Your task to perform on an android device: Open the phone app and click the voicemail tab. Image 0: 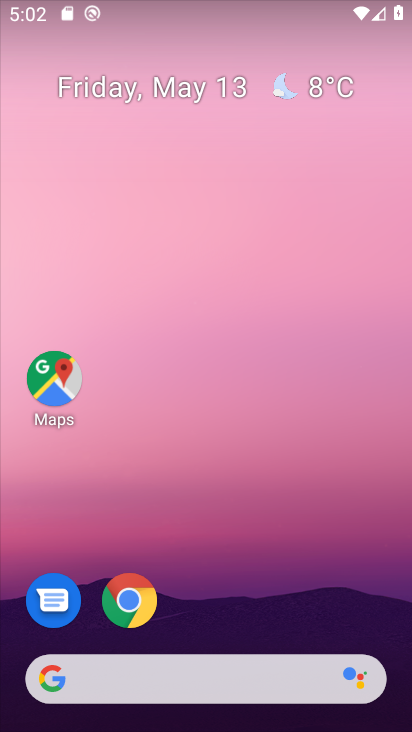
Step 0: drag from (317, 570) to (191, 76)
Your task to perform on an android device: Open the phone app and click the voicemail tab. Image 1: 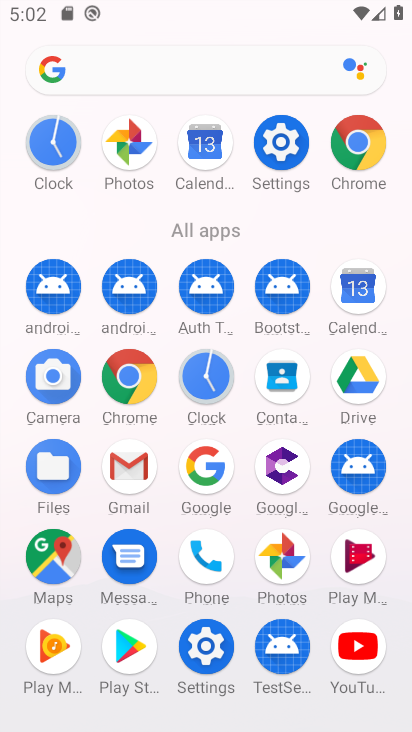
Step 1: click (191, 582)
Your task to perform on an android device: Open the phone app and click the voicemail tab. Image 2: 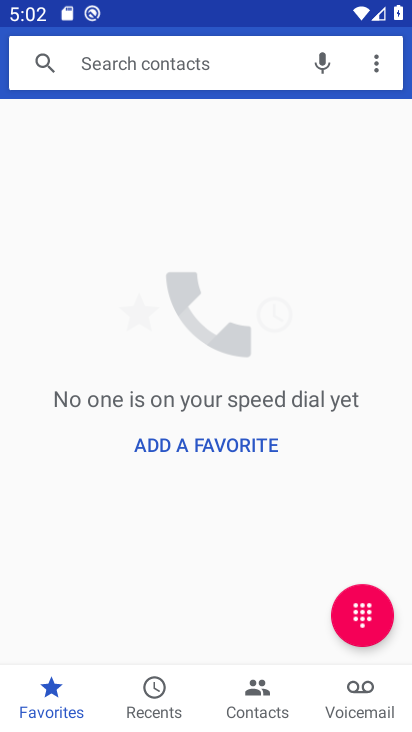
Step 2: click (342, 715)
Your task to perform on an android device: Open the phone app and click the voicemail tab. Image 3: 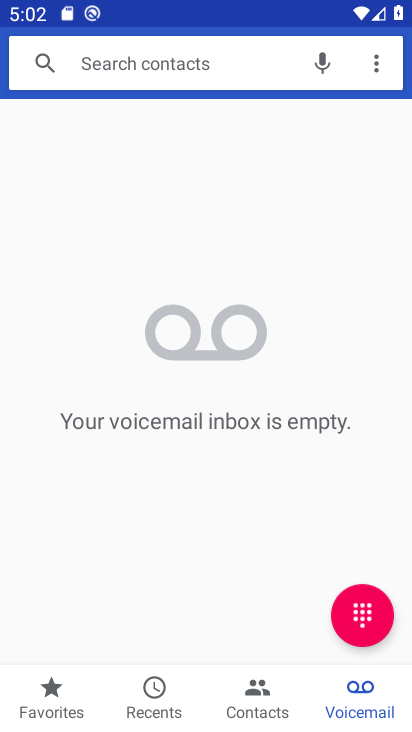
Step 3: task complete